Your task to perform on an android device: Toggle the flashlight Image 0: 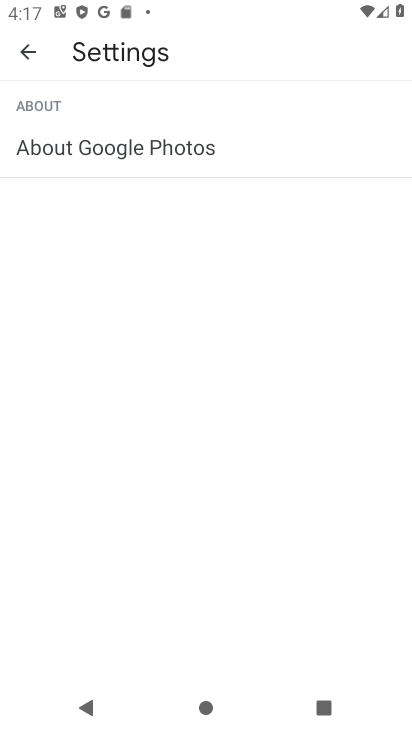
Step 0: press back button
Your task to perform on an android device: Toggle the flashlight Image 1: 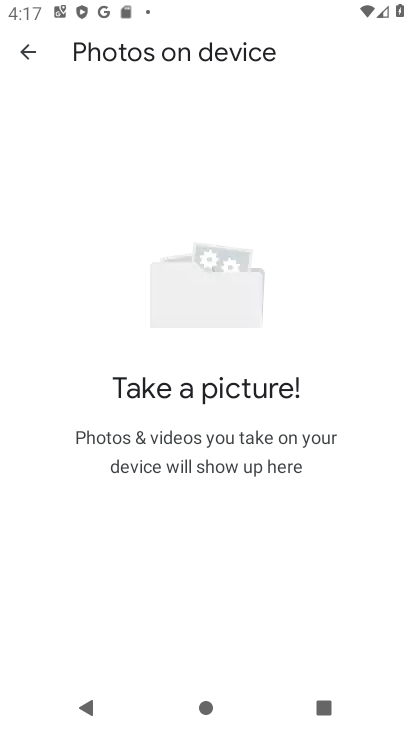
Step 1: press home button
Your task to perform on an android device: Toggle the flashlight Image 2: 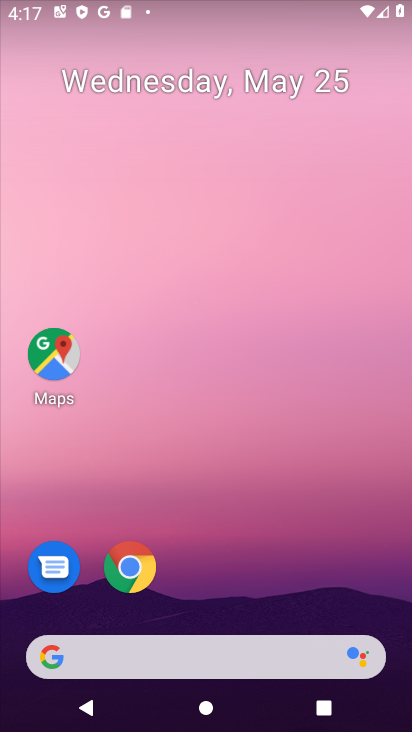
Step 2: drag from (229, 550) to (172, 36)
Your task to perform on an android device: Toggle the flashlight Image 3: 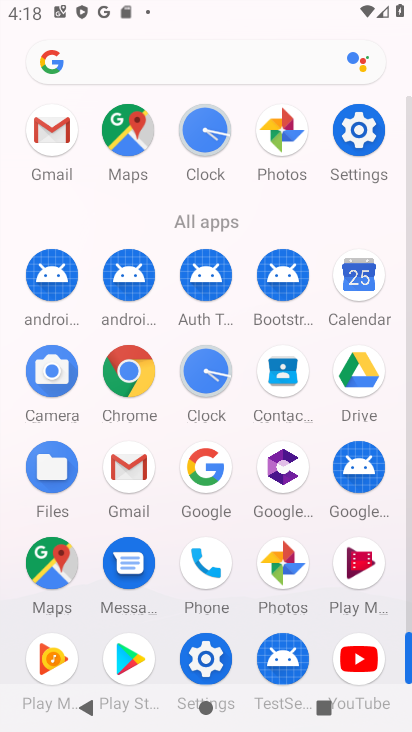
Step 3: click (359, 132)
Your task to perform on an android device: Toggle the flashlight Image 4: 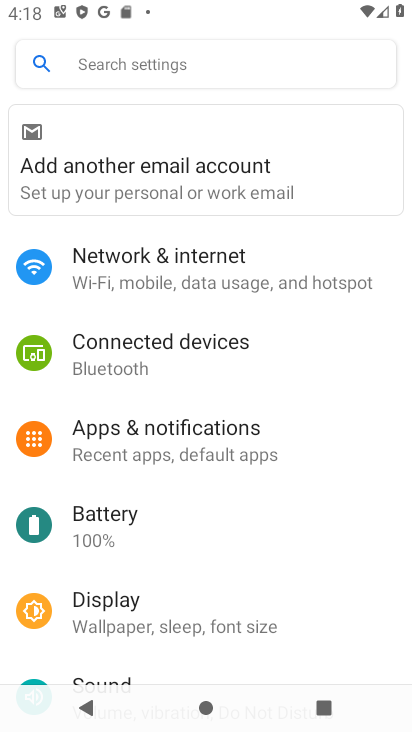
Step 4: click (228, 276)
Your task to perform on an android device: Toggle the flashlight Image 5: 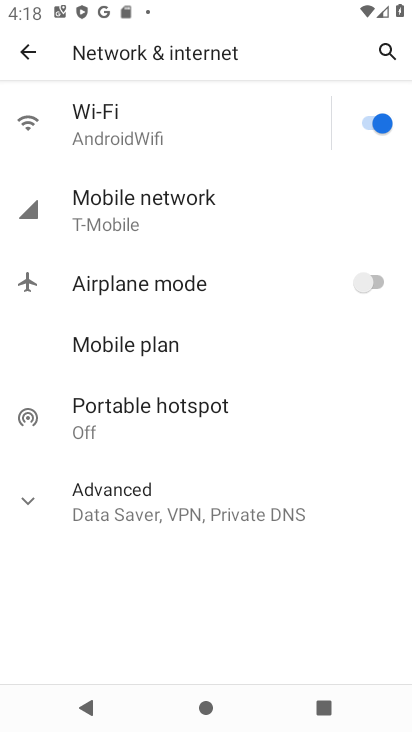
Step 5: click (16, 503)
Your task to perform on an android device: Toggle the flashlight Image 6: 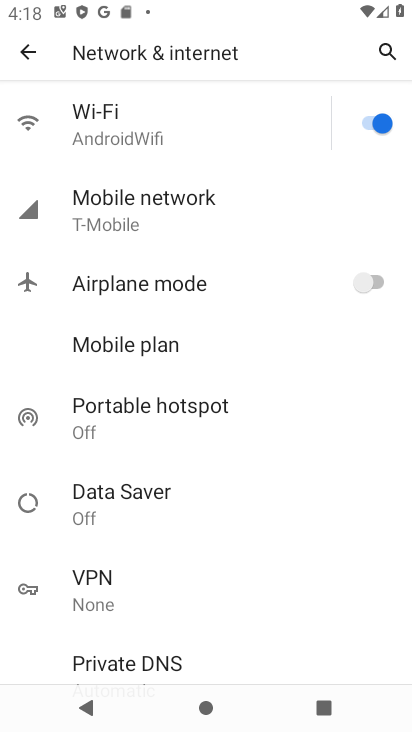
Step 6: task complete